Your task to perform on an android device: Open Yahoo.com Image 0: 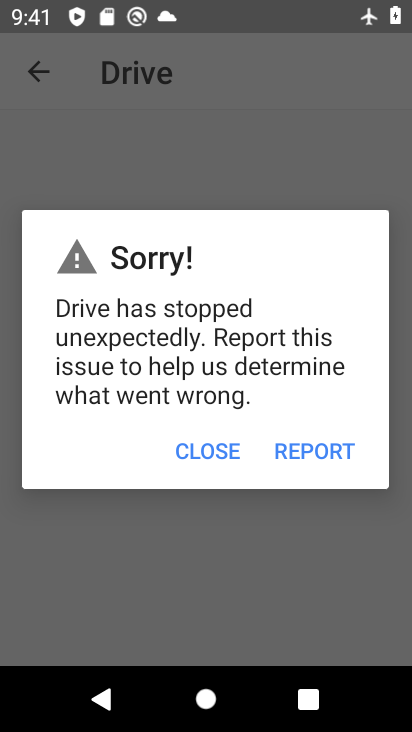
Step 0: press home button
Your task to perform on an android device: Open Yahoo.com Image 1: 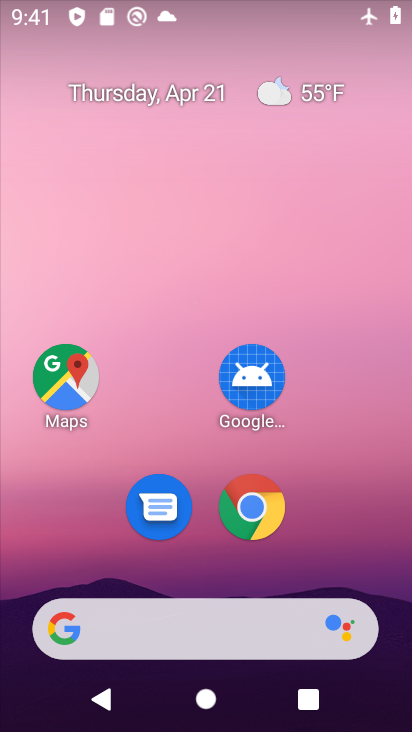
Step 1: drag from (327, 496) to (318, 146)
Your task to perform on an android device: Open Yahoo.com Image 2: 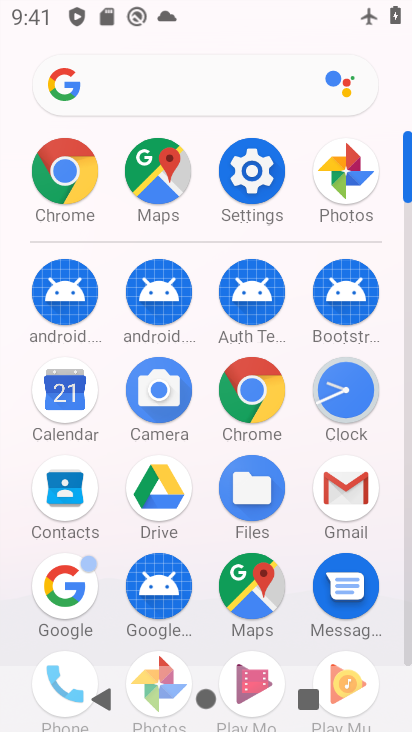
Step 2: click (259, 375)
Your task to perform on an android device: Open Yahoo.com Image 3: 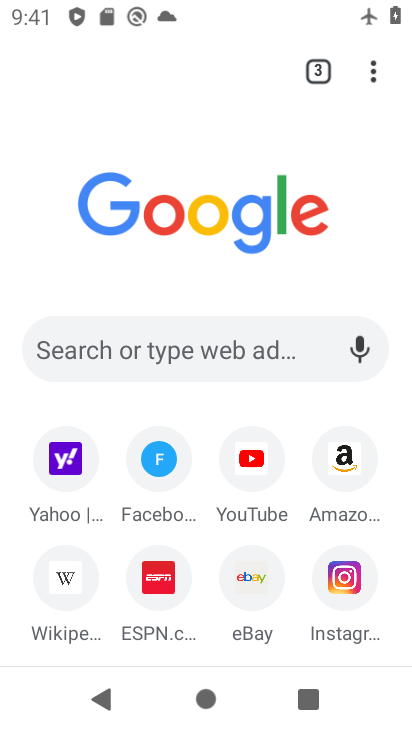
Step 3: click (61, 456)
Your task to perform on an android device: Open Yahoo.com Image 4: 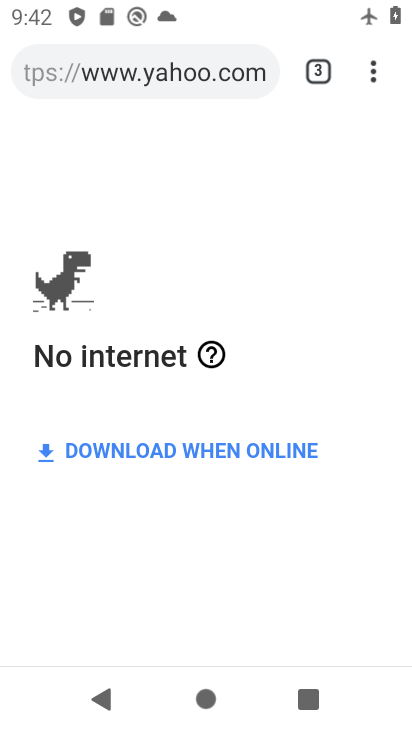
Step 4: task complete